Your task to perform on an android device: search for starred emails in the gmail app Image 0: 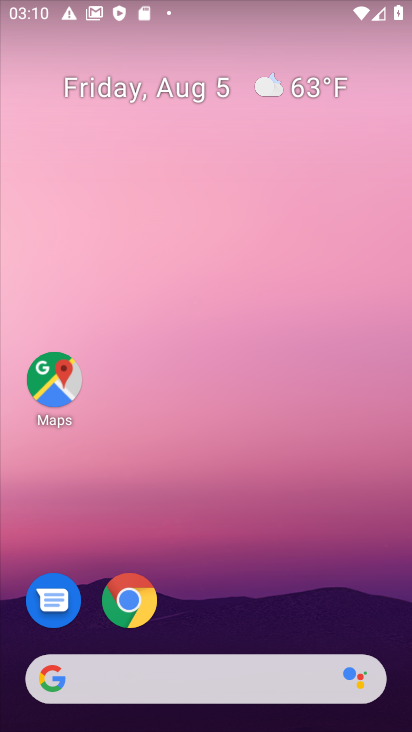
Step 0: drag from (177, 683) to (168, 259)
Your task to perform on an android device: search for starred emails in the gmail app Image 1: 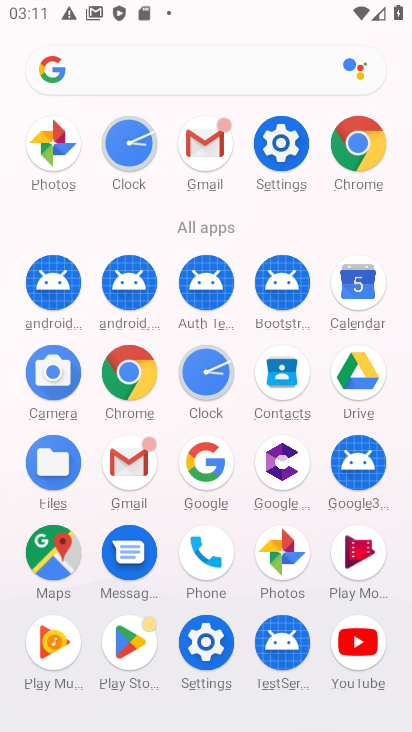
Step 1: click (203, 144)
Your task to perform on an android device: search for starred emails in the gmail app Image 2: 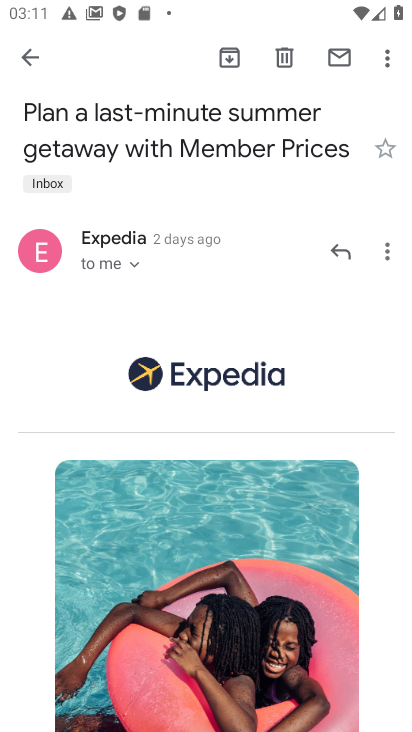
Step 2: press back button
Your task to perform on an android device: search for starred emails in the gmail app Image 3: 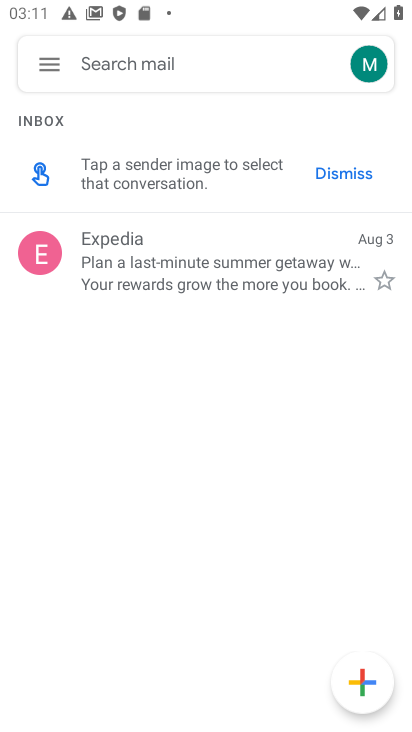
Step 3: click (52, 60)
Your task to perform on an android device: search for starred emails in the gmail app Image 4: 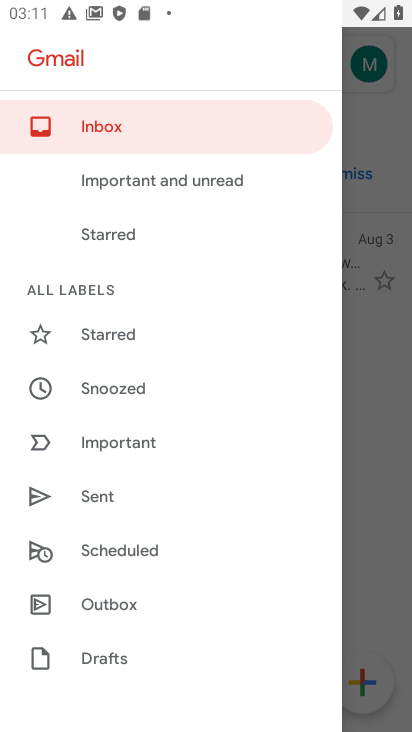
Step 4: click (131, 329)
Your task to perform on an android device: search for starred emails in the gmail app Image 5: 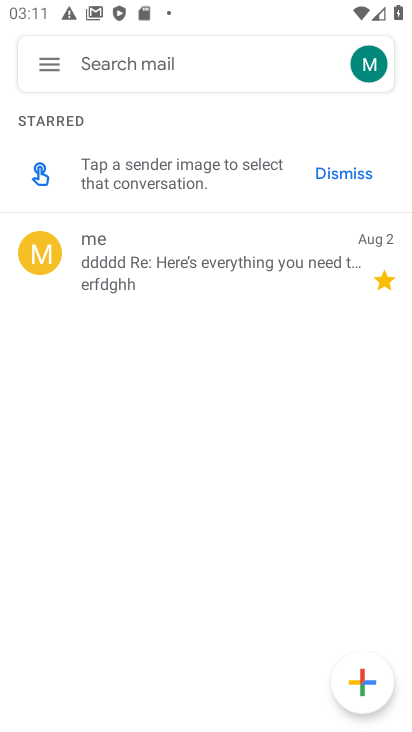
Step 5: task complete